Your task to perform on an android device: Open the map Image 0: 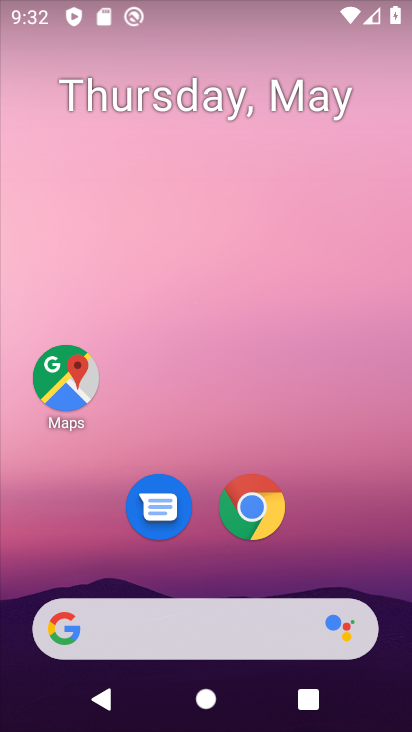
Step 0: click (65, 382)
Your task to perform on an android device: Open the map Image 1: 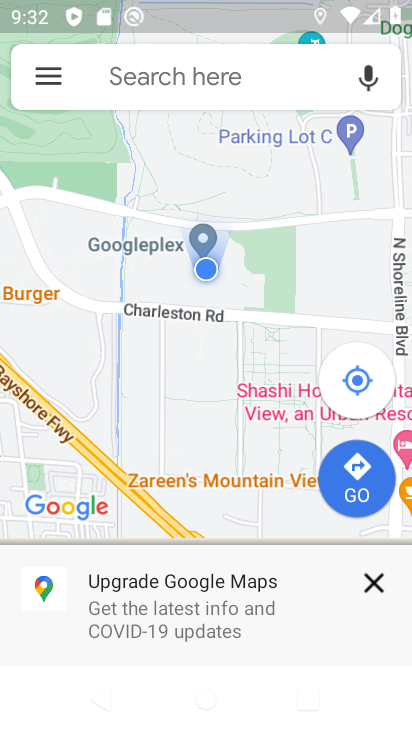
Step 1: task complete